Your task to perform on an android device: open app "Mercado Libre" Image 0: 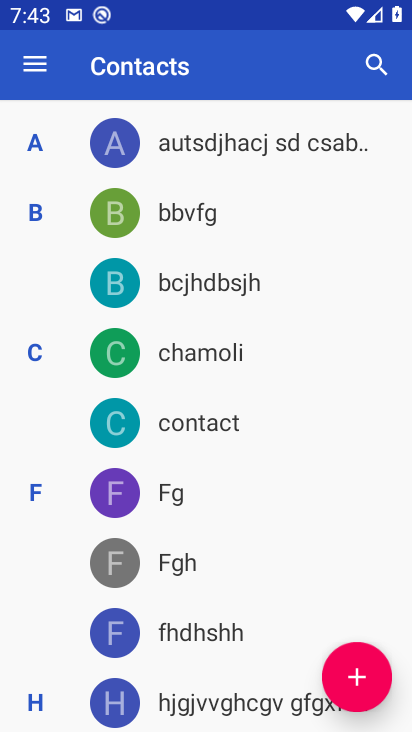
Step 0: press home button
Your task to perform on an android device: open app "Mercado Libre" Image 1: 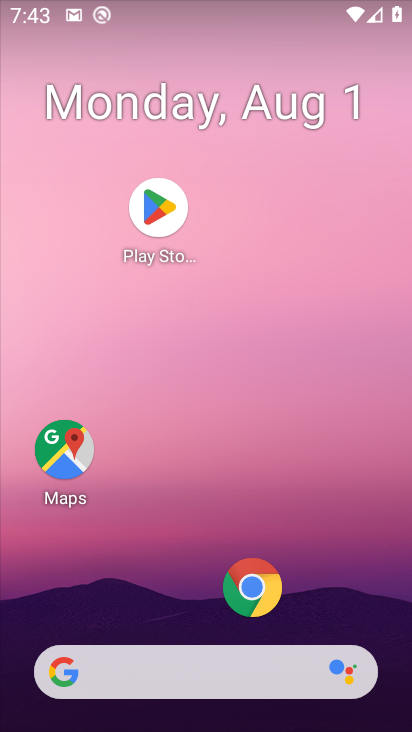
Step 1: click (172, 663)
Your task to perform on an android device: open app "Mercado Libre" Image 2: 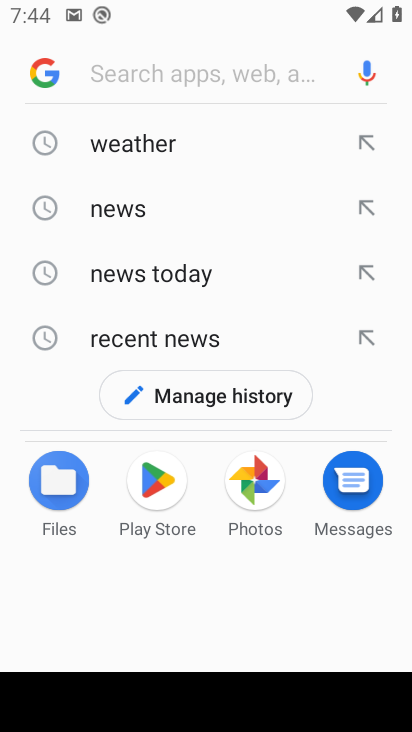
Step 2: type "mercado libre"
Your task to perform on an android device: open app "Mercado Libre" Image 3: 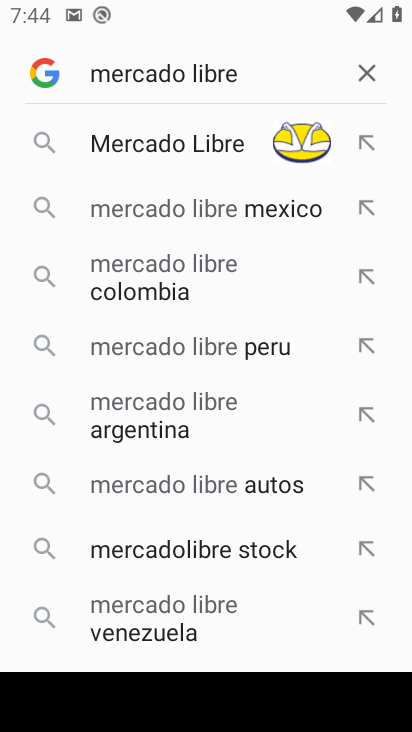
Step 3: click (271, 143)
Your task to perform on an android device: open app "Mercado Libre" Image 4: 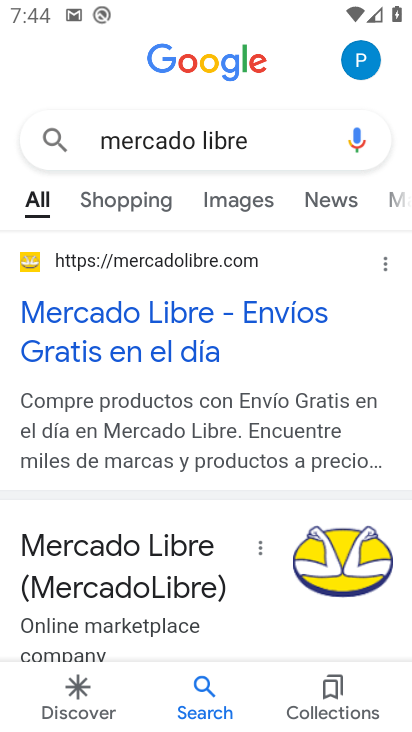
Step 4: drag from (235, 584) to (255, 261)
Your task to perform on an android device: open app "Mercado Libre" Image 5: 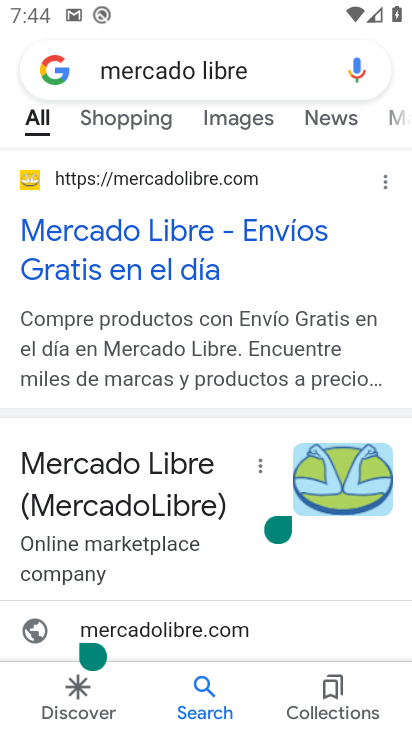
Step 5: click (244, 581)
Your task to perform on an android device: open app "Mercado Libre" Image 6: 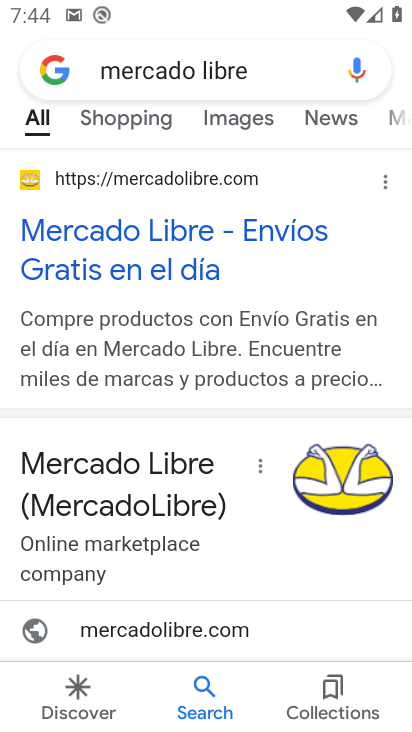
Step 6: drag from (244, 581) to (239, 193)
Your task to perform on an android device: open app "Mercado Libre" Image 7: 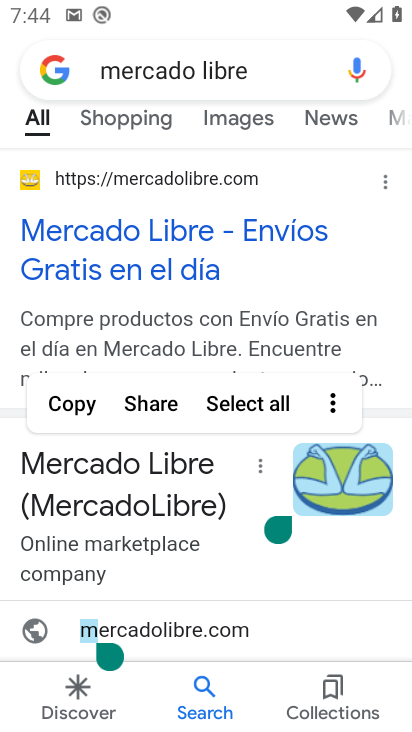
Step 7: click (312, 603)
Your task to perform on an android device: open app "Mercado Libre" Image 8: 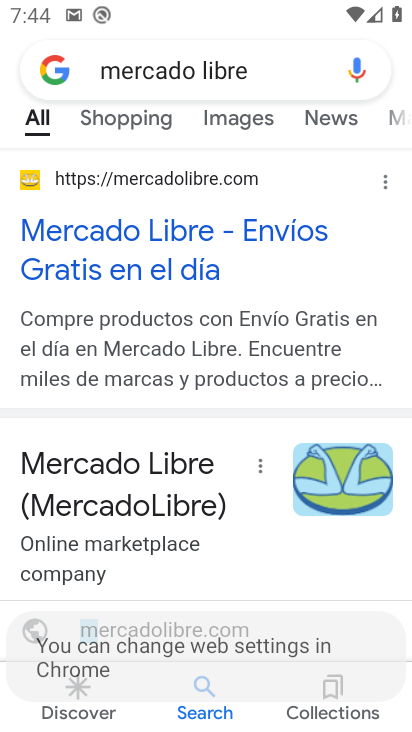
Step 8: task complete